Your task to perform on an android device: Go to CNN.com Image 0: 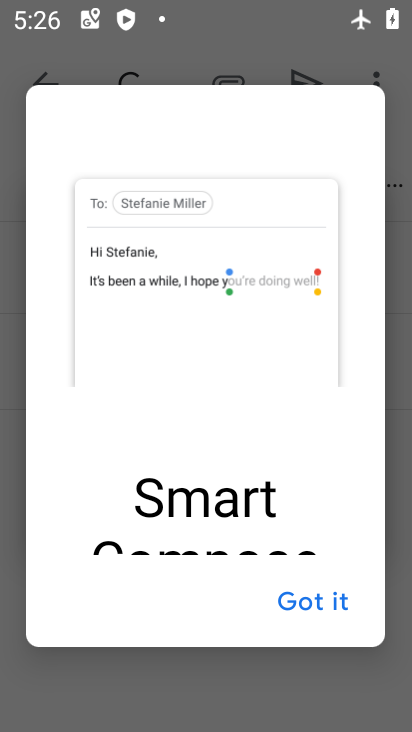
Step 0: press home button
Your task to perform on an android device: Go to CNN.com Image 1: 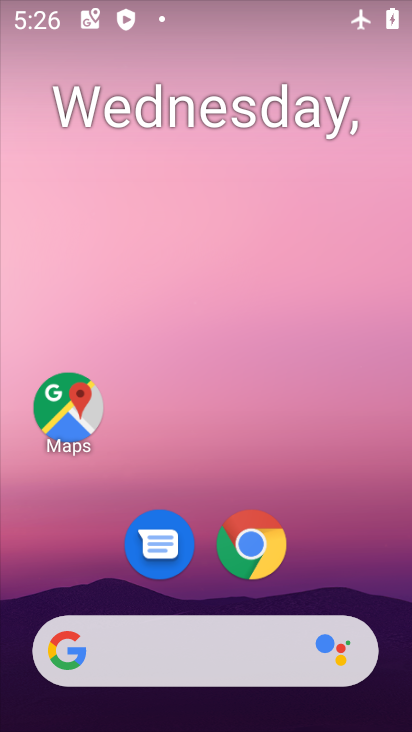
Step 1: click (259, 544)
Your task to perform on an android device: Go to CNN.com Image 2: 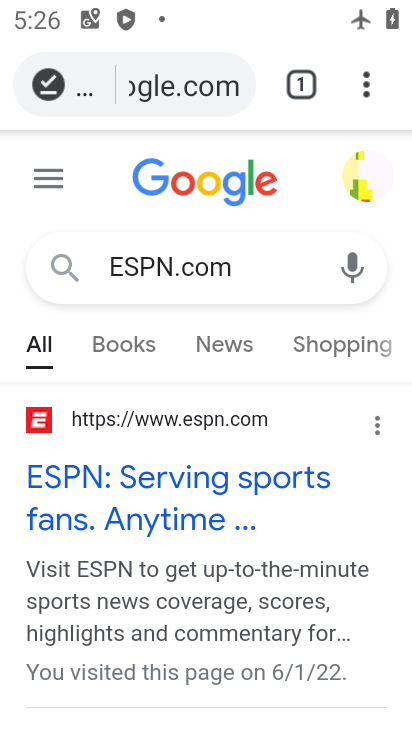
Step 2: click (245, 85)
Your task to perform on an android device: Go to CNN.com Image 3: 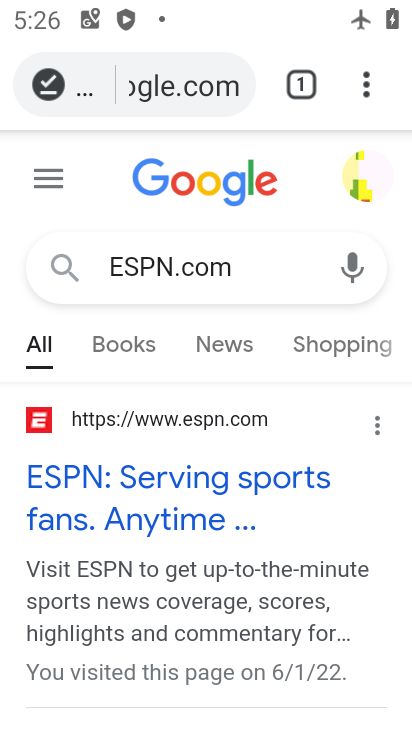
Step 3: click (239, 85)
Your task to perform on an android device: Go to CNN.com Image 4: 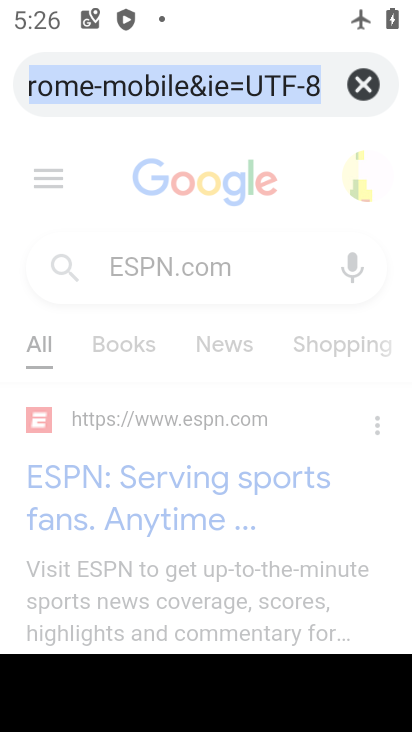
Step 4: click (366, 83)
Your task to perform on an android device: Go to CNN.com Image 5: 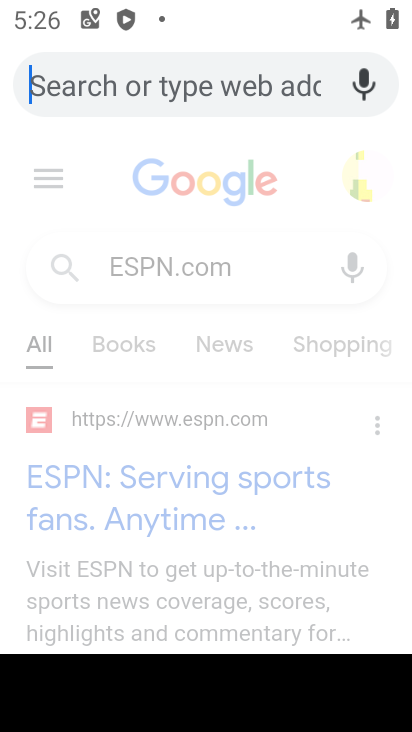
Step 5: type "CNN.com"
Your task to perform on an android device: Go to CNN.com Image 6: 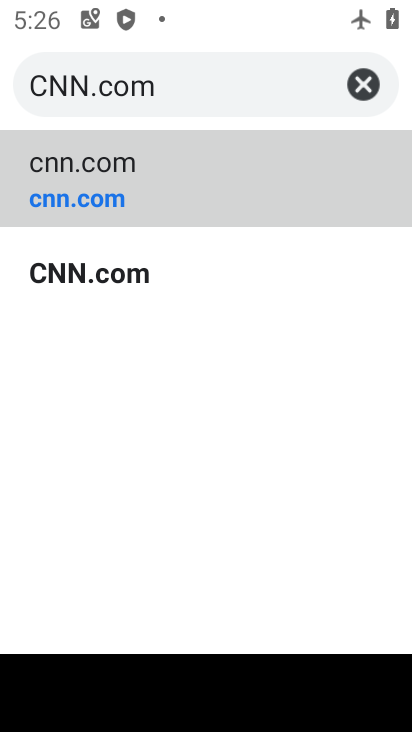
Step 6: click (131, 275)
Your task to perform on an android device: Go to CNN.com Image 7: 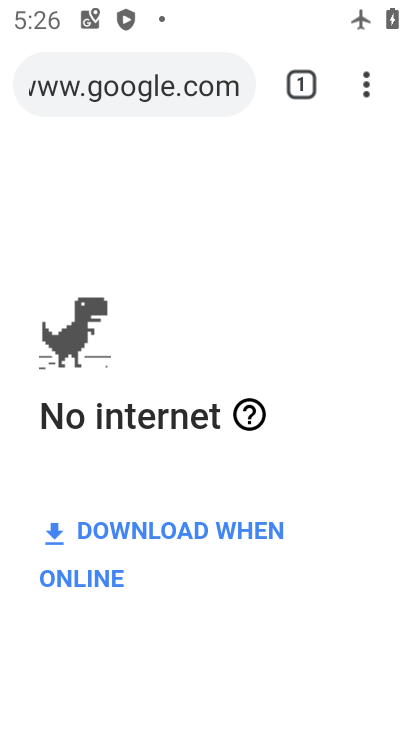
Step 7: task complete